Your task to perform on an android device: Open Amazon Image 0: 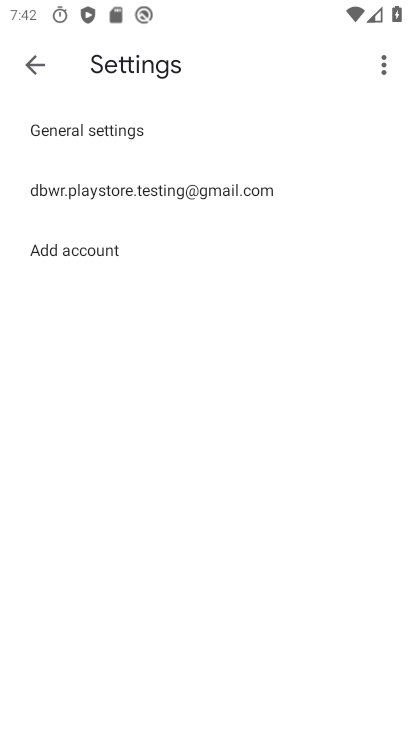
Step 0: press home button
Your task to perform on an android device: Open Amazon Image 1: 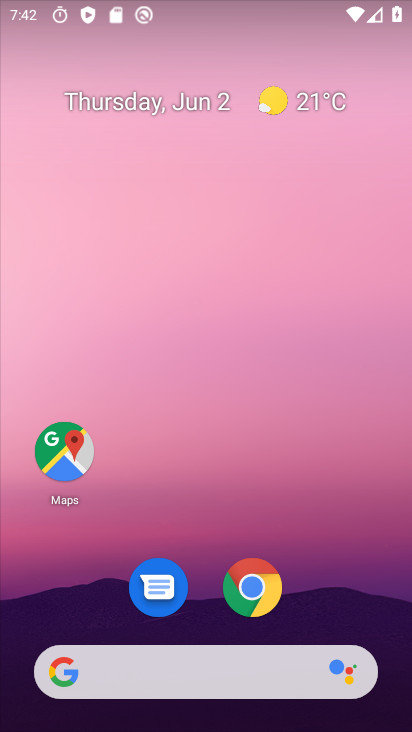
Step 1: click (267, 595)
Your task to perform on an android device: Open Amazon Image 2: 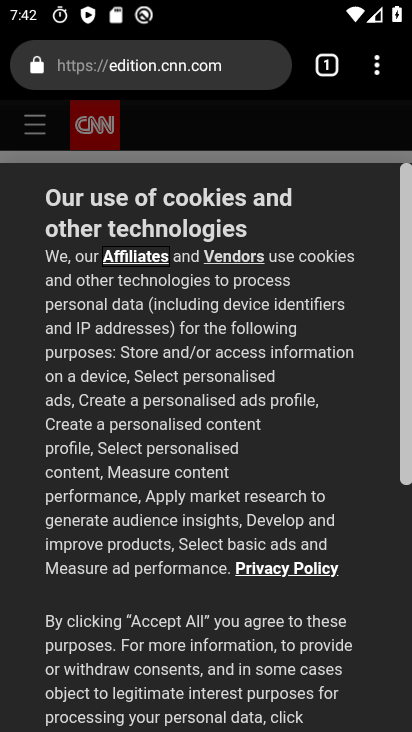
Step 2: click (126, 74)
Your task to perform on an android device: Open Amazon Image 3: 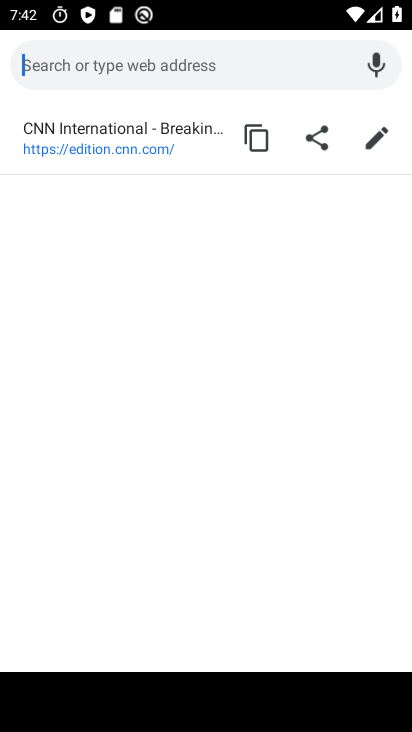
Step 3: type "amazon"
Your task to perform on an android device: Open Amazon Image 4: 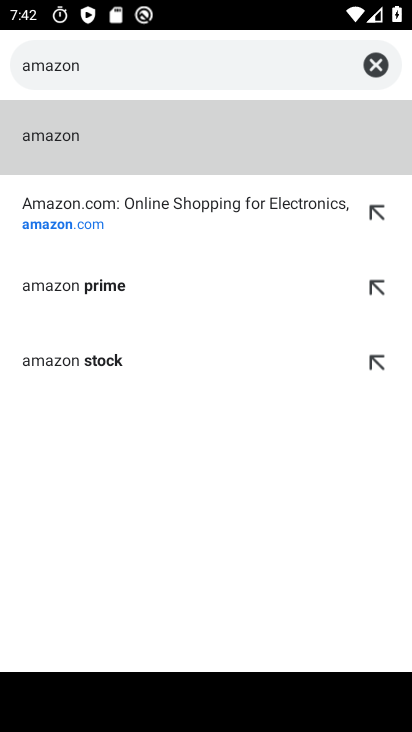
Step 4: click (55, 143)
Your task to perform on an android device: Open Amazon Image 5: 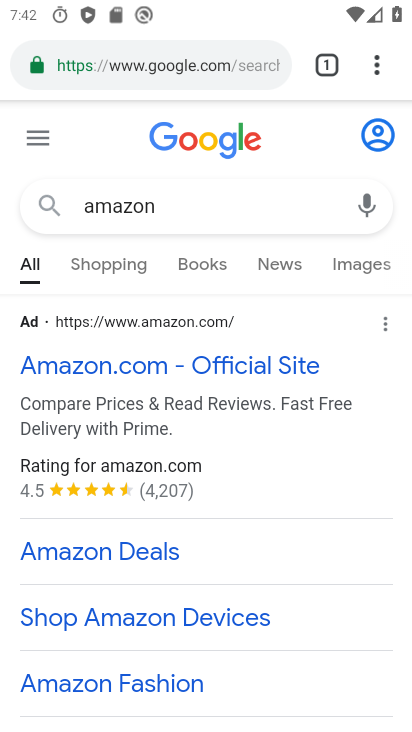
Step 5: click (84, 372)
Your task to perform on an android device: Open Amazon Image 6: 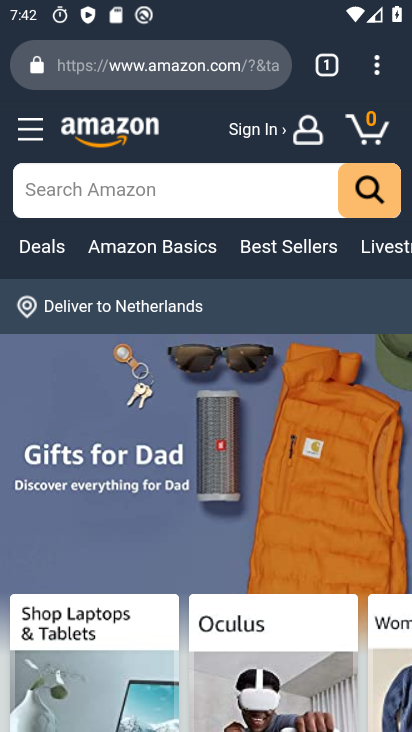
Step 6: task complete